Your task to perform on an android device: Open calendar and show me the second week of next month Image 0: 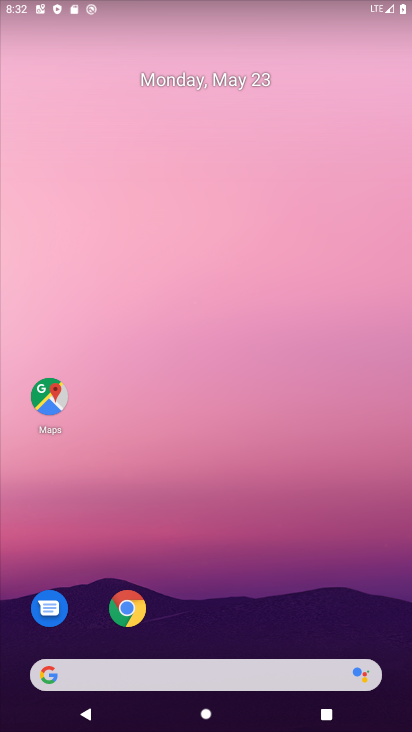
Step 0: drag from (225, 654) to (195, 127)
Your task to perform on an android device: Open calendar and show me the second week of next month Image 1: 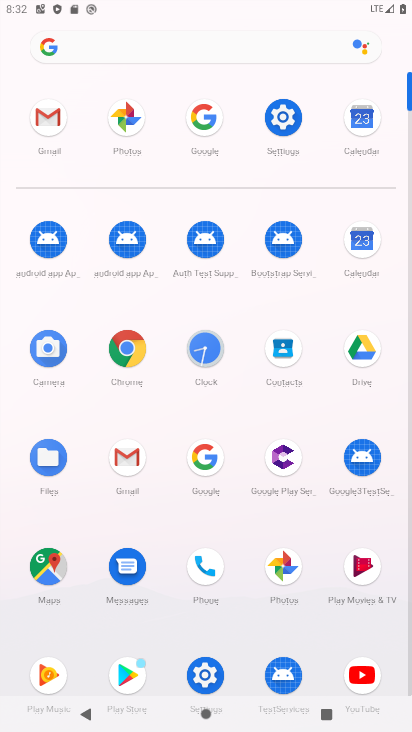
Step 1: click (349, 249)
Your task to perform on an android device: Open calendar and show me the second week of next month Image 2: 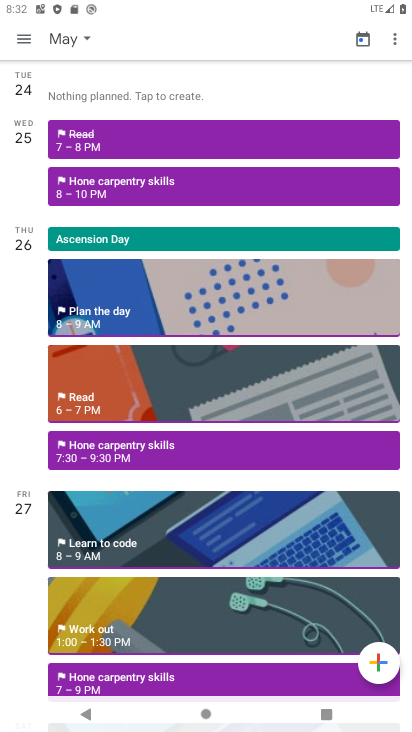
Step 2: click (36, 36)
Your task to perform on an android device: Open calendar and show me the second week of next month Image 3: 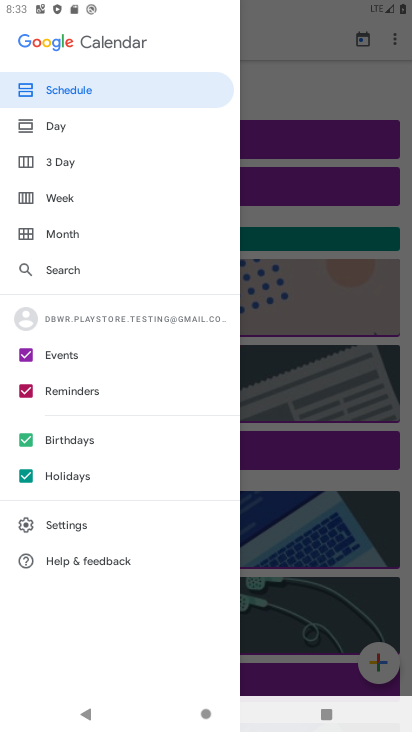
Step 3: click (74, 230)
Your task to perform on an android device: Open calendar and show me the second week of next month Image 4: 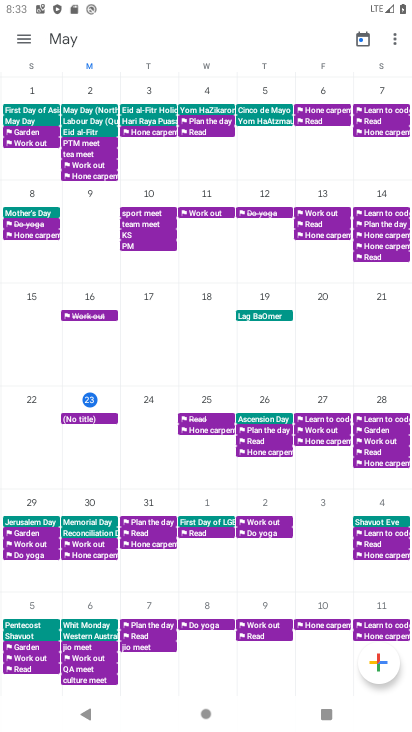
Step 4: task complete